Your task to perform on an android device: open sync settings in chrome Image 0: 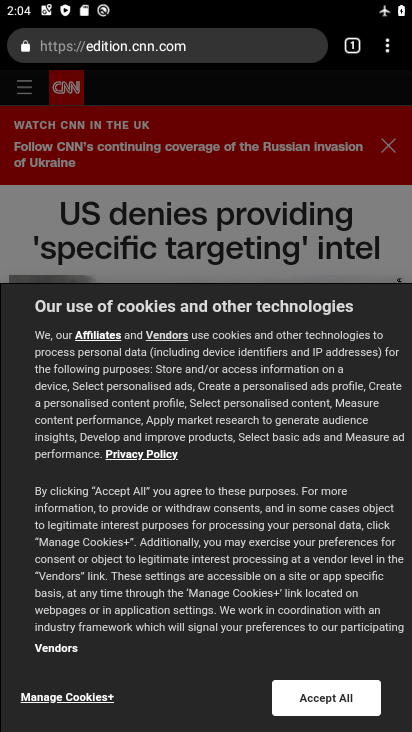
Step 0: drag from (393, 53) to (320, 512)
Your task to perform on an android device: open sync settings in chrome Image 1: 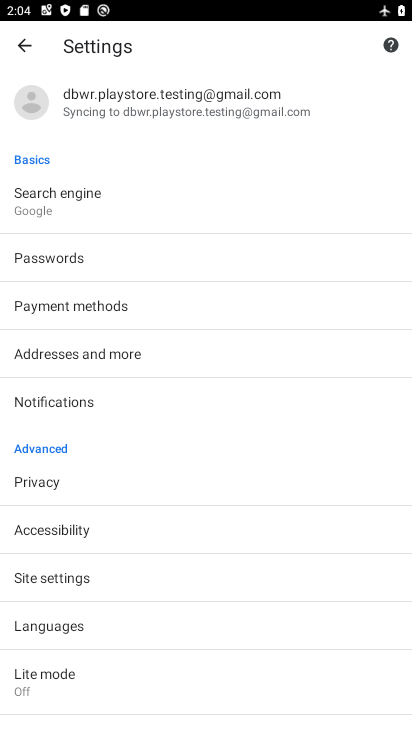
Step 1: click (151, 98)
Your task to perform on an android device: open sync settings in chrome Image 2: 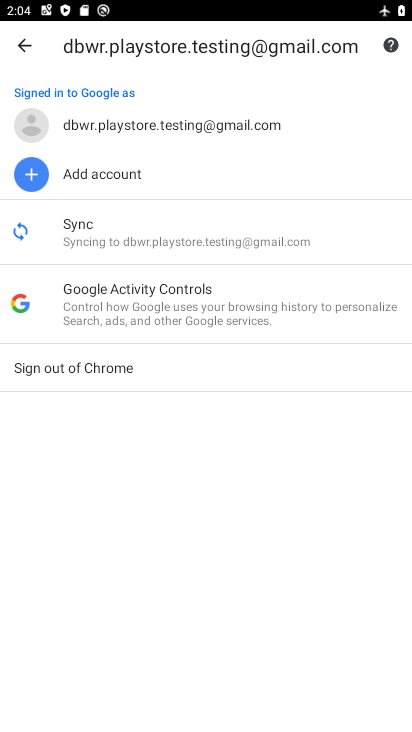
Step 2: click (90, 227)
Your task to perform on an android device: open sync settings in chrome Image 3: 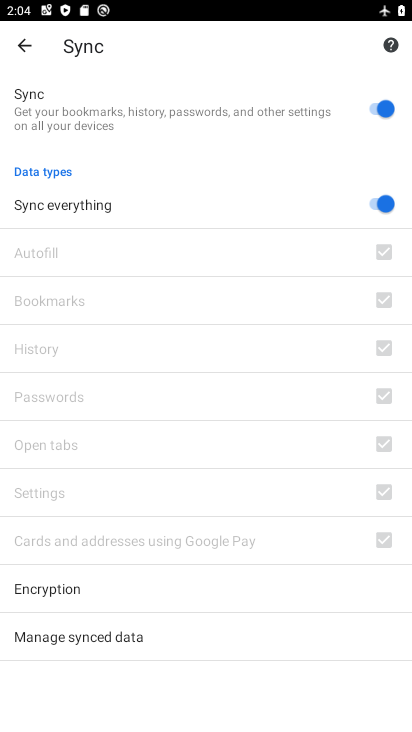
Step 3: task complete